Your task to perform on an android device: set the stopwatch Image 0: 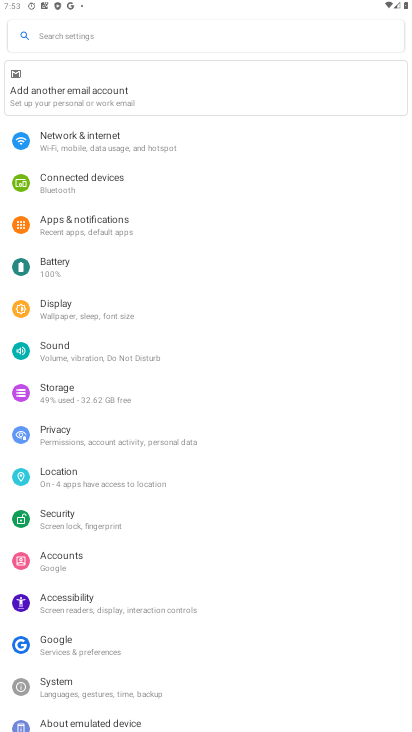
Step 0: press home button
Your task to perform on an android device: set the stopwatch Image 1: 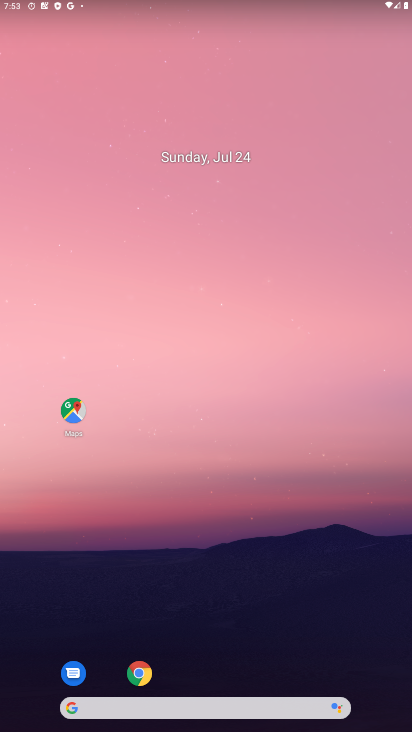
Step 1: drag from (17, 707) to (281, 7)
Your task to perform on an android device: set the stopwatch Image 2: 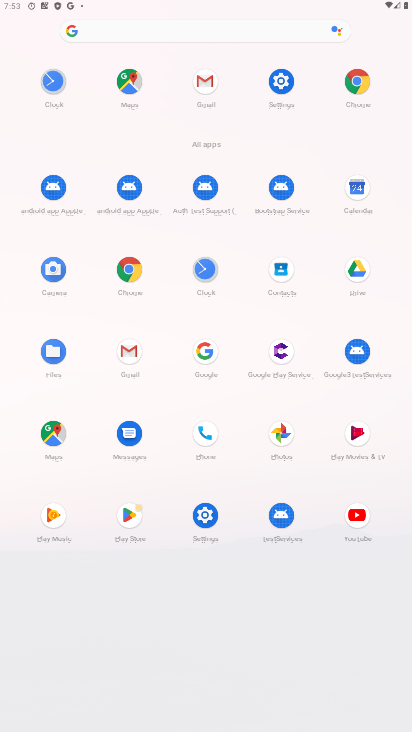
Step 2: click (197, 274)
Your task to perform on an android device: set the stopwatch Image 3: 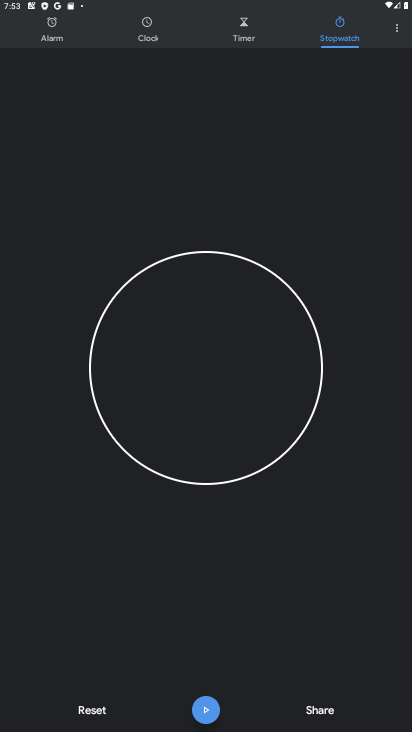
Step 3: click (204, 700)
Your task to perform on an android device: set the stopwatch Image 4: 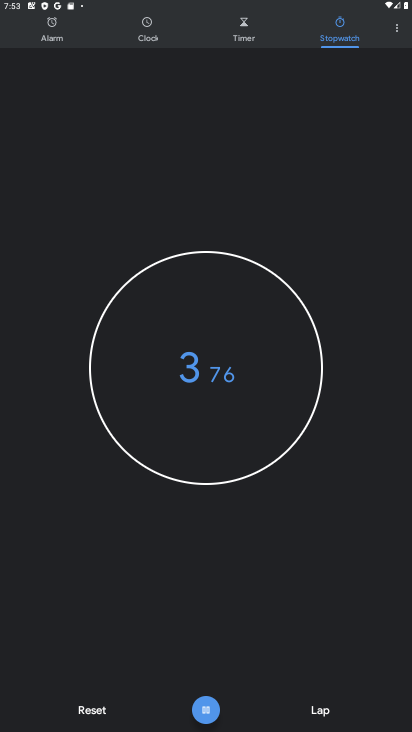
Step 4: click (202, 707)
Your task to perform on an android device: set the stopwatch Image 5: 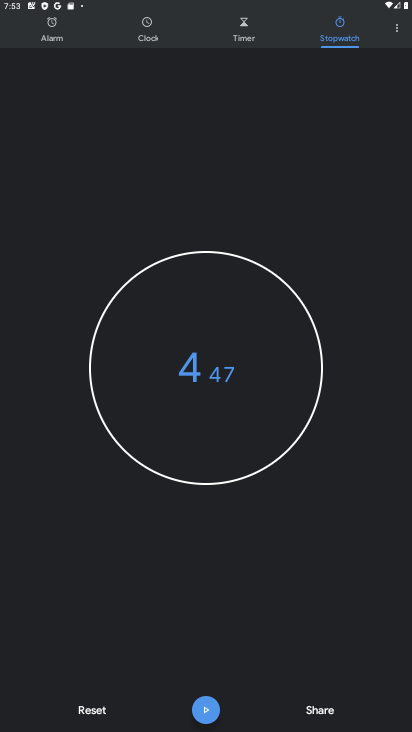
Step 5: click (243, 388)
Your task to perform on an android device: set the stopwatch Image 6: 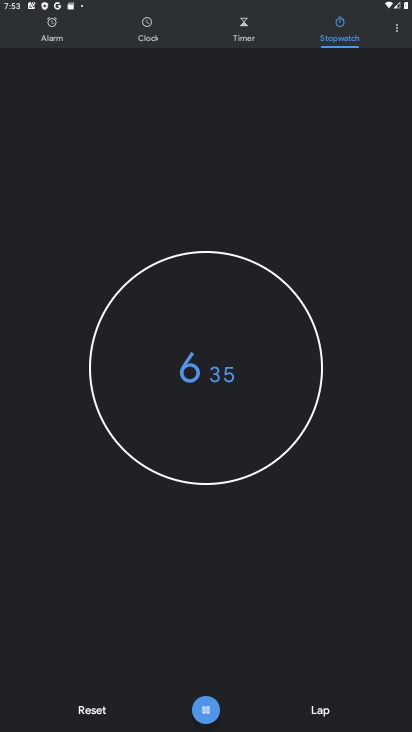
Step 6: click (243, 384)
Your task to perform on an android device: set the stopwatch Image 7: 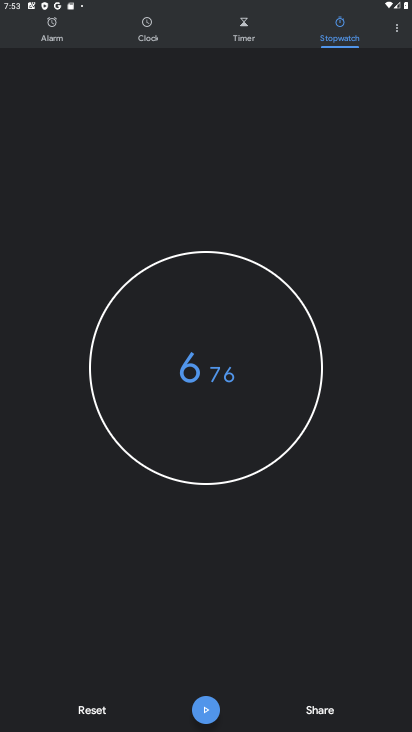
Step 7: task complete